Your task to perform on an android device: delete the emails in spam in the gmail app Image 0: 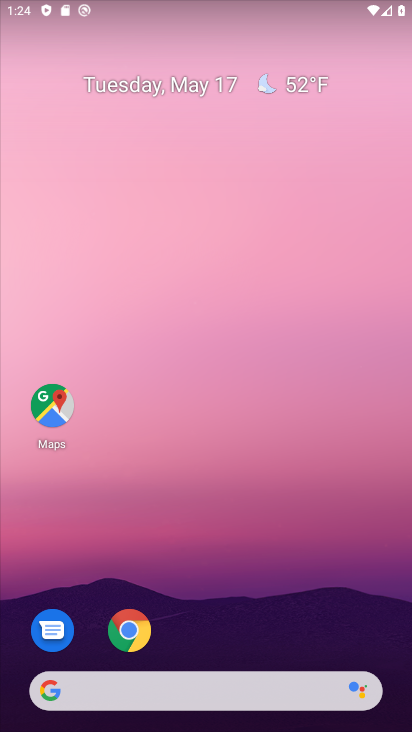
Step 0: drag from (204, 626) to (305, 146)
Your task to perform on an android device: delete the emails in spam in the gmail app Image 1: 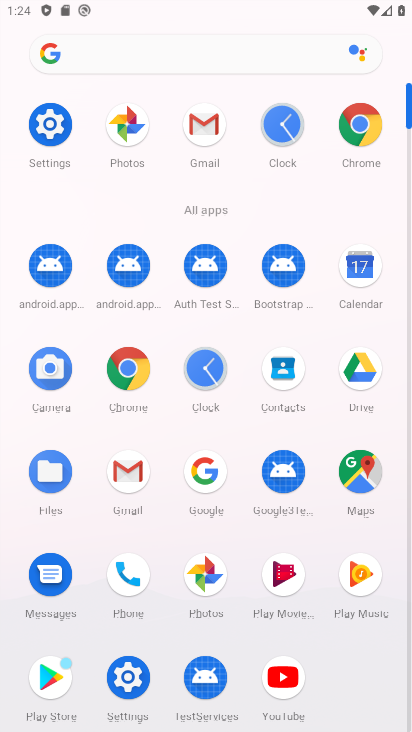
Step 1: click (199, 122)
Your task to perform on an android device: delete the emails in spam in the gmail app Image 2: 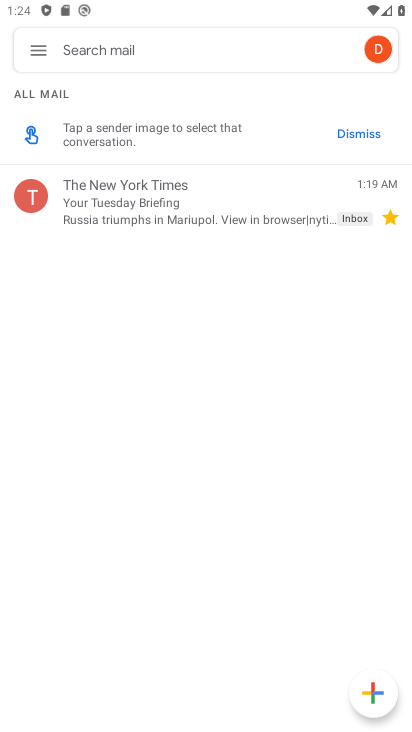
Step 2: click (31, 60)
Your task to perform on an android device: delete the emails in spam in the gmail app Image 3: 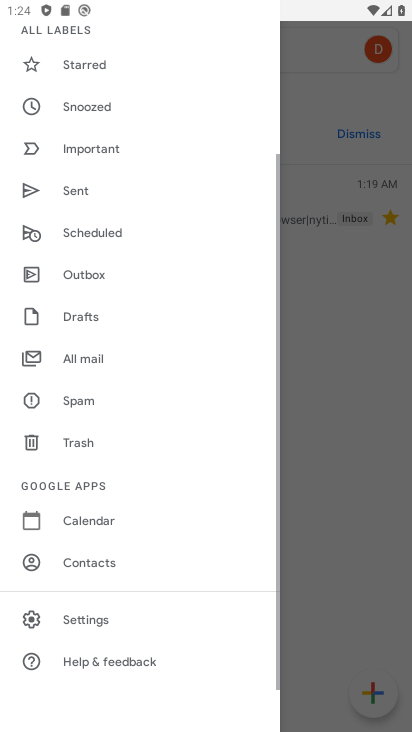
Step 3: click (63, 407)
Your task to perform on an android device: delete the emails in spam in the gmail app Image 4: 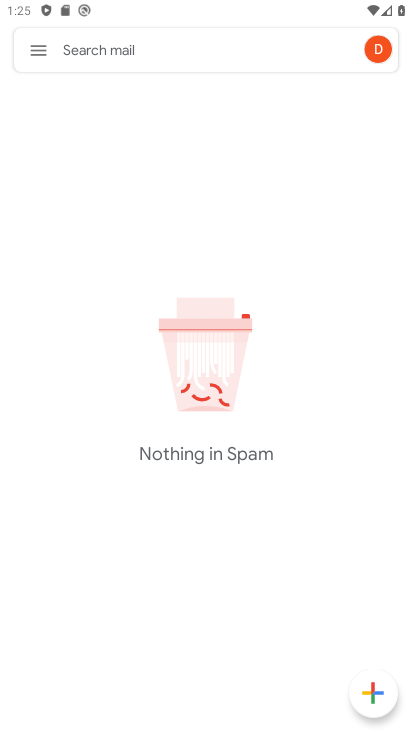
Step 4: task complete